Your task to perform on an android device: refresh tabs in the chrome app Image 0: 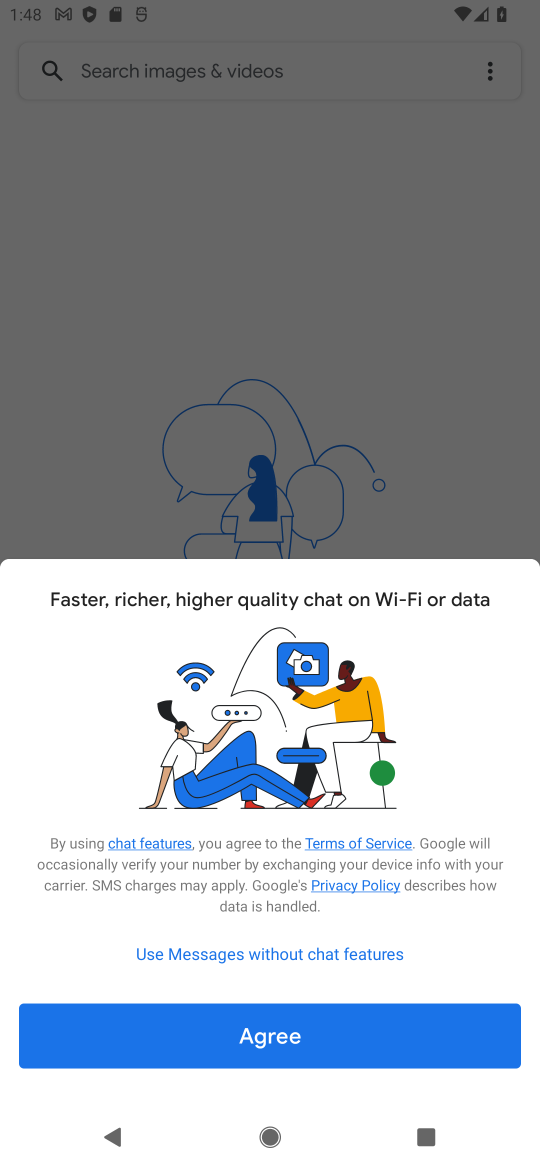
Step 0: press home button
Your task to perform on an android device: refresh tabs in the chrome app Image 1: 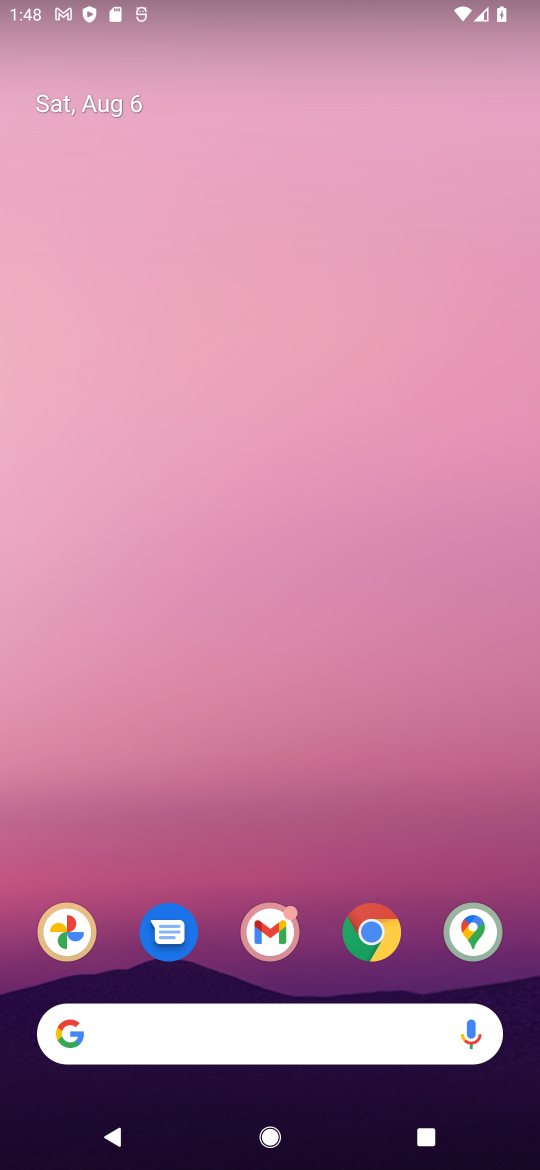
Step 1: drag from (342, 968) to (346, 47)
Your task to perform on an android device: refresh tabs in the chrome app Image 2: 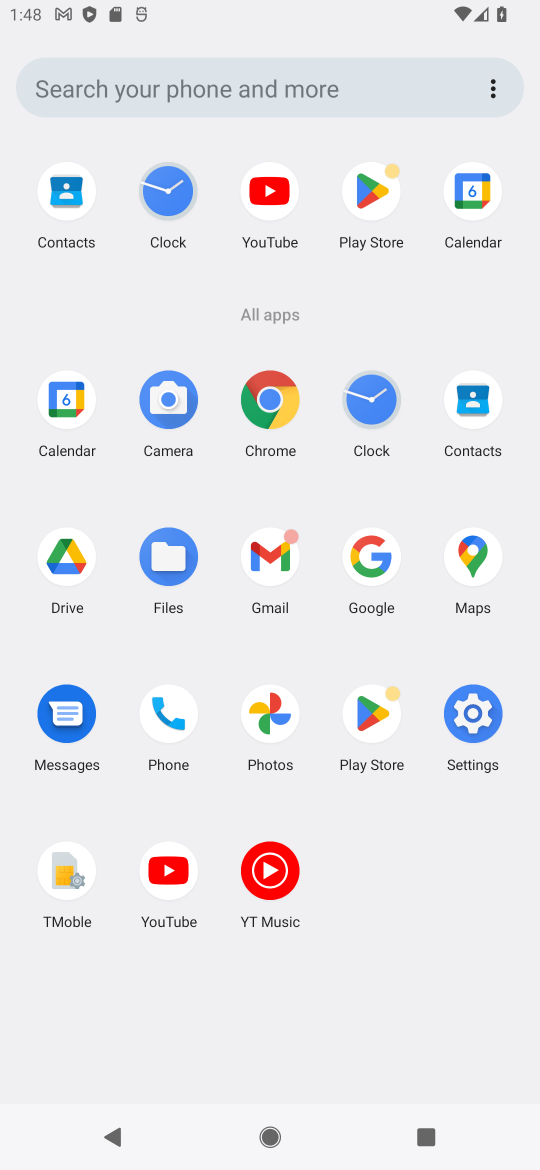
Step 2: click (274, 397)
Your task to perform on an android device: refresh tabs in the chrome app Image 3: 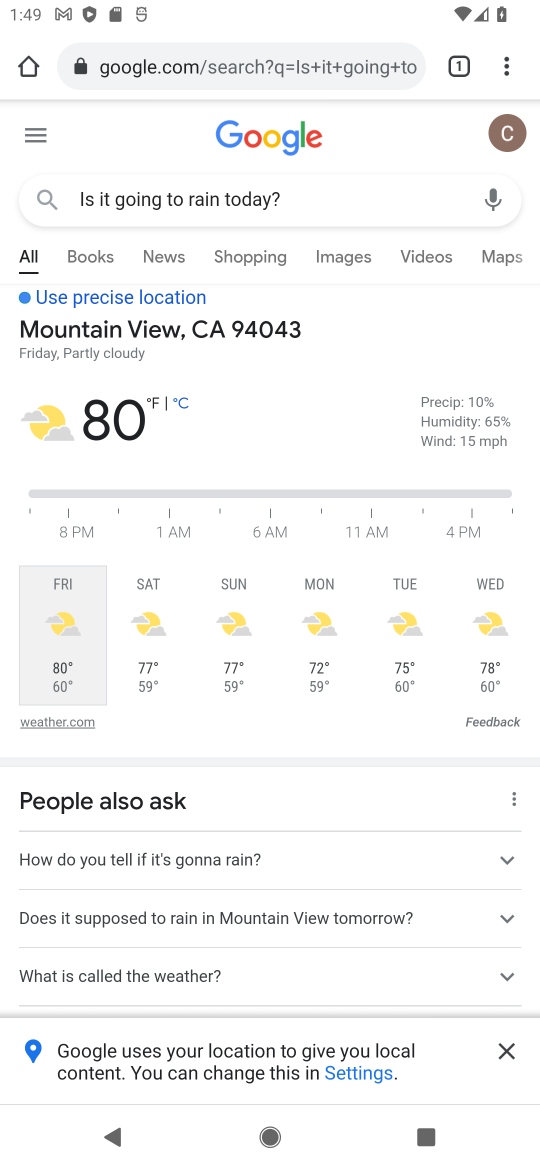
Step 3: click (273, 72)
Your task to perform on an android device: refresh tabs in the chrome app Image 4: 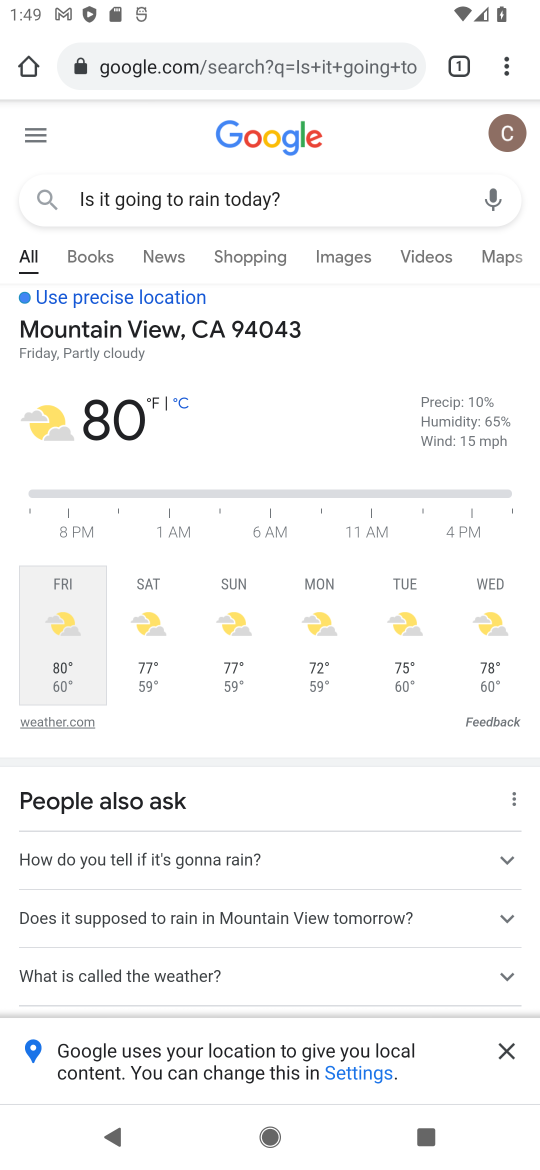
Step 4: click (273, 72)
Your task to perform on an android device: refresh tabs in the chrome app Image 5: 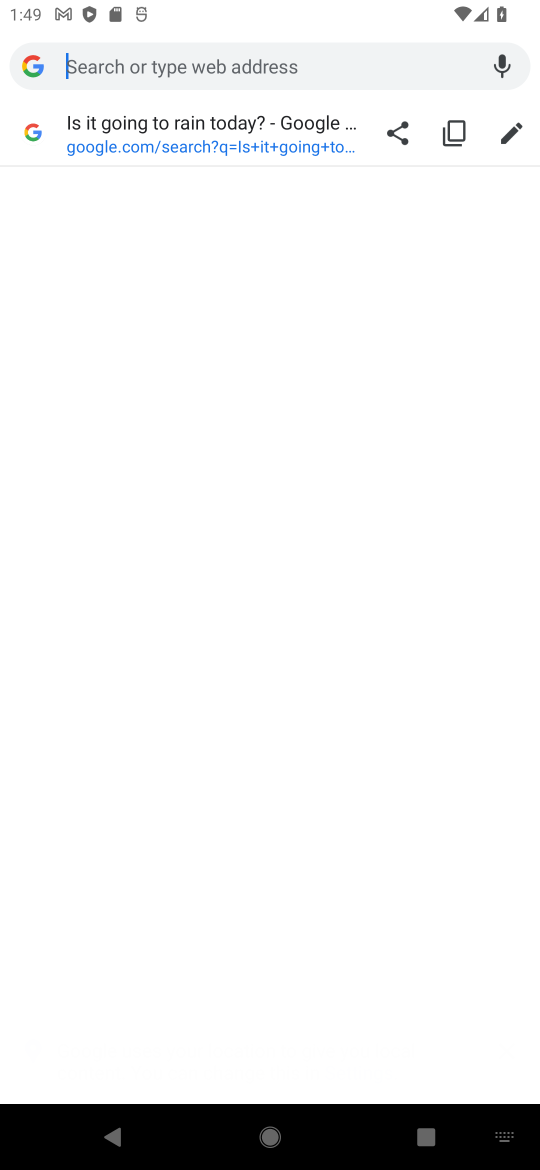
Step 5: press back button
Your task to perform on an android device: refresh tabs in the chrome app Image 6: 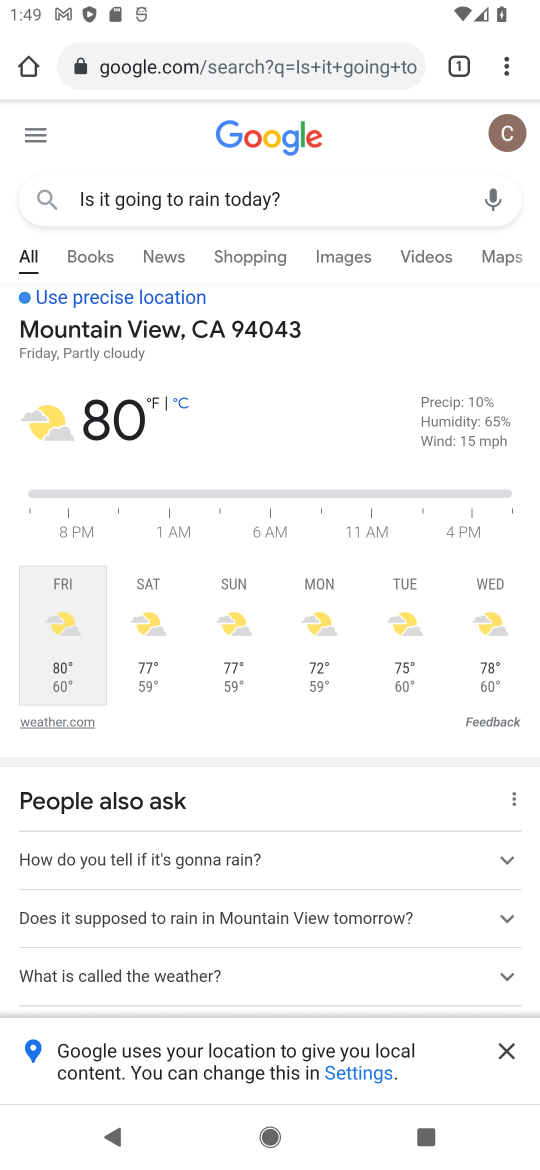
Step 6: click (507, 61)
Your task to perform on an android device: refresh tabs in the chrome app Image 7: 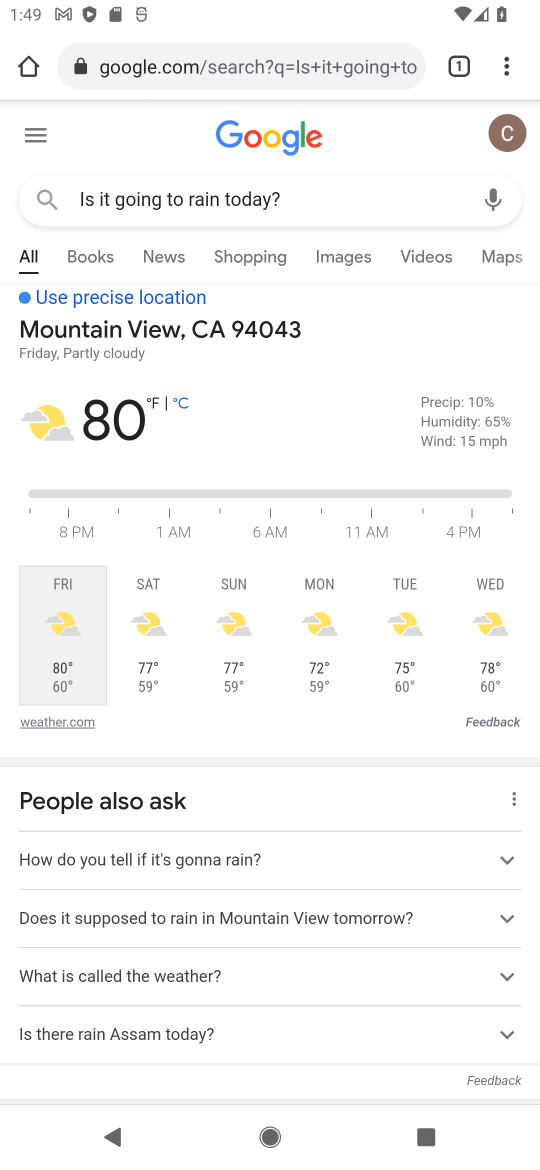
Step 7: task complete